Your task to perform on an android device: Open Yahoo.com Image 0: 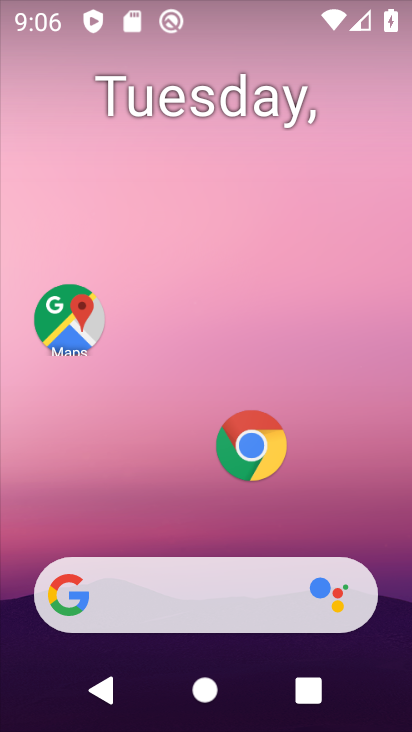
Step 0: click (259, 458)
Your task to perform on an android device: Open Yahoo.com Image 1: 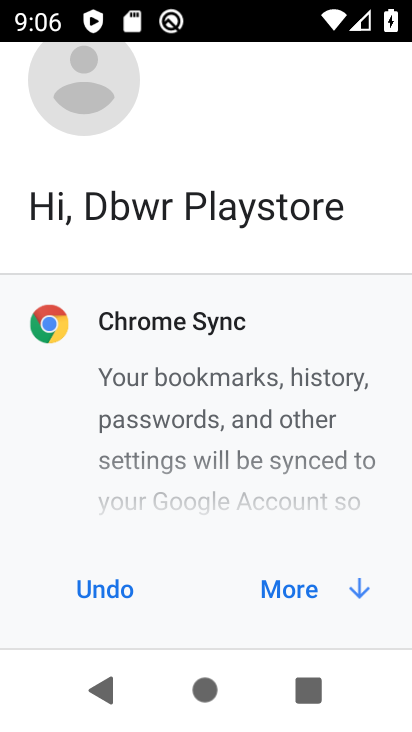
Step 1: click (308, 588)
Your task to perform on an android device: Open Yahoo.com Image 2: 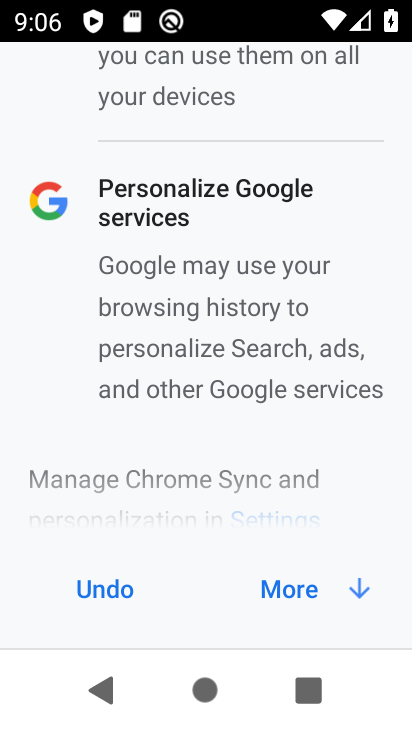
Step 2: click (302, 596)
Your task to perform on an android device: Open Yahoo.com Image 3: 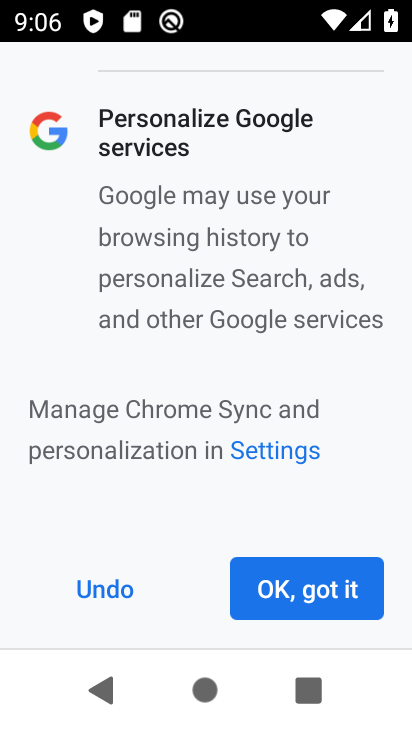
Step 3: click (311, 588)
Your task to perform on an android device: Open Yahoo.com Image 4: 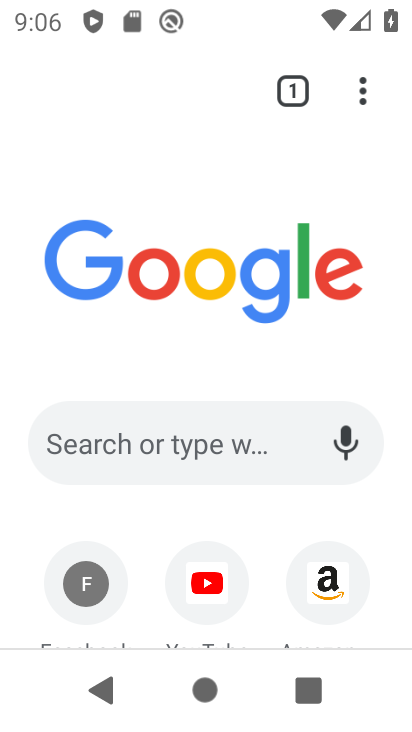
Step 4: drag from (275, 562) to (278, 395)
Your task to perform on an android device: Open Yahoo.com Image 5: 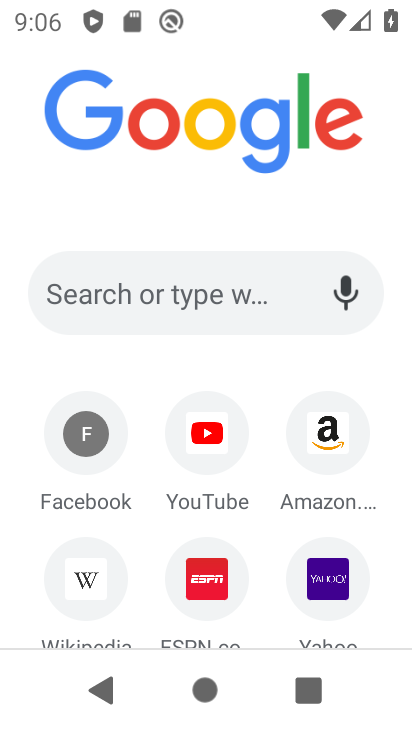
Step 5: click (335, 594)
Your task to perform on an android device: Open Yahoo.com Image 6: 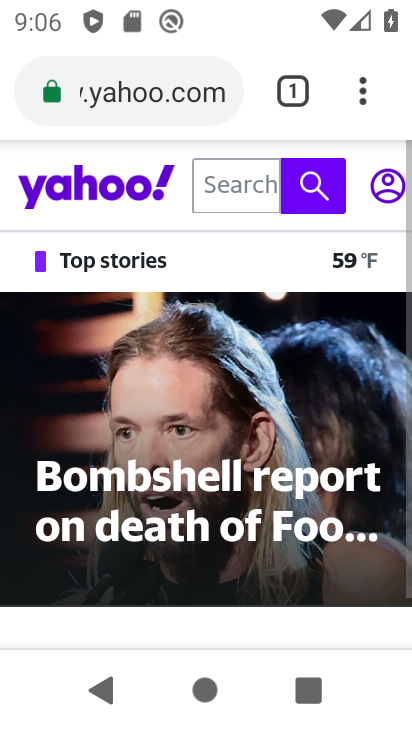
Step 6: task complete